Your task to perform on an android device: Open network settings Image 0: 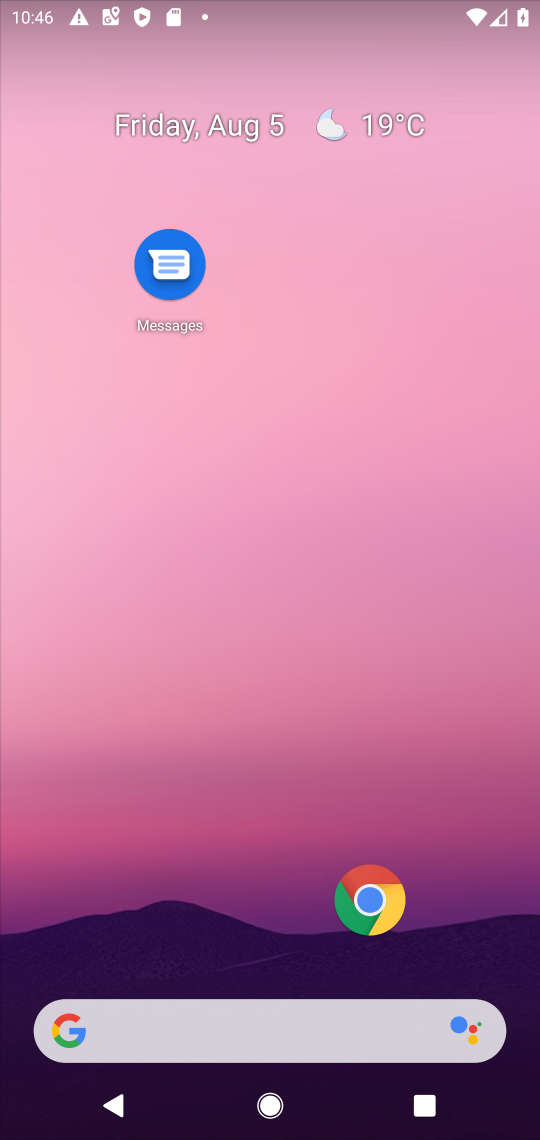
Step 0: press home button
Your task to perform on an android device: Open network settings Image 1: 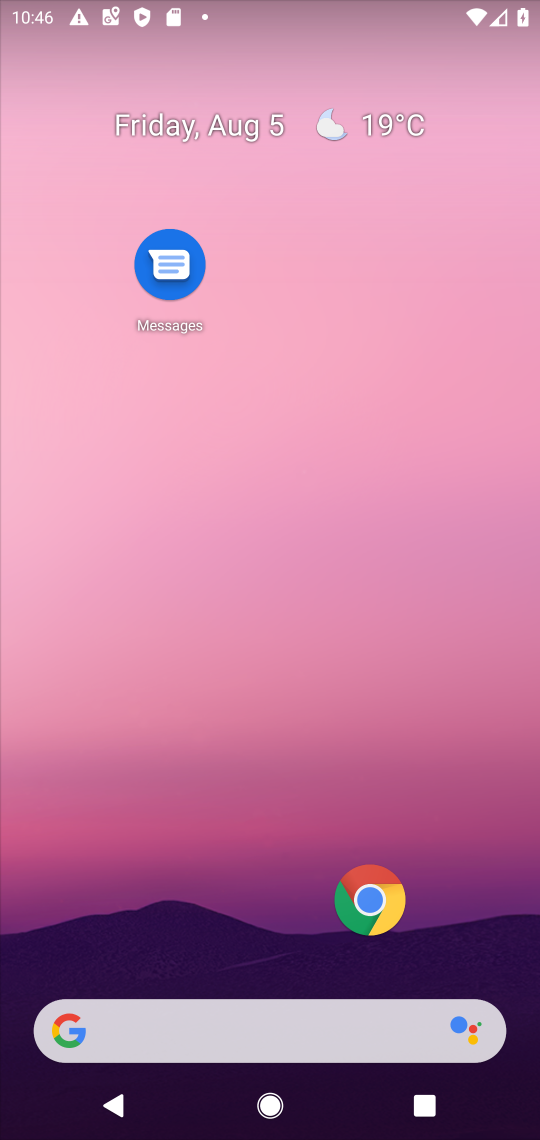
Step 1: drag from (250, 966) to (253, 508)
Your task to perform on an android device: Open network settings Image 2: 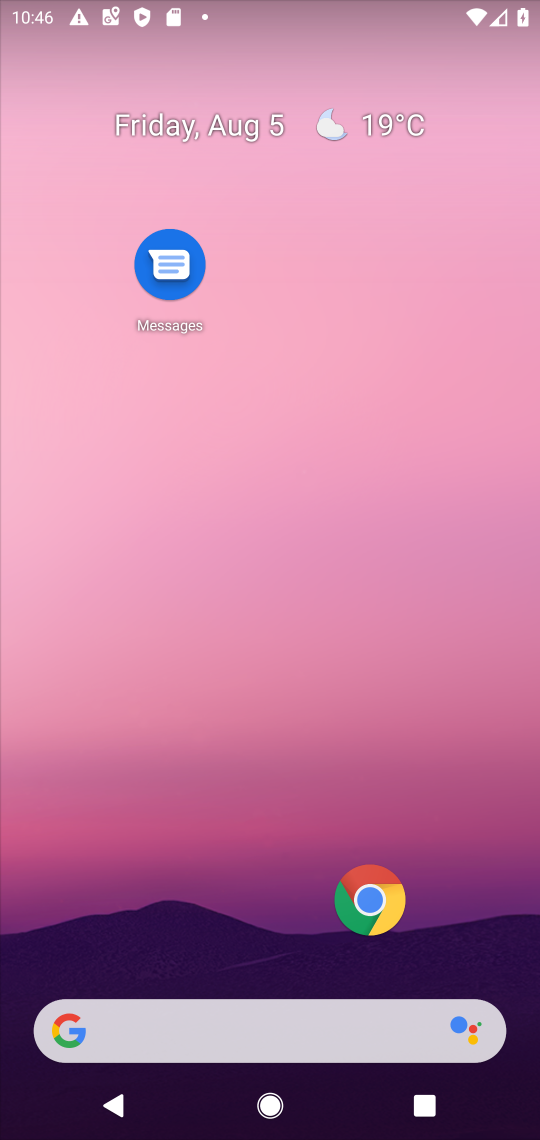
Step 2: drag from (258, 1000) to (212, 164)
Your task to perform on an android device: Open network settings Image 3: 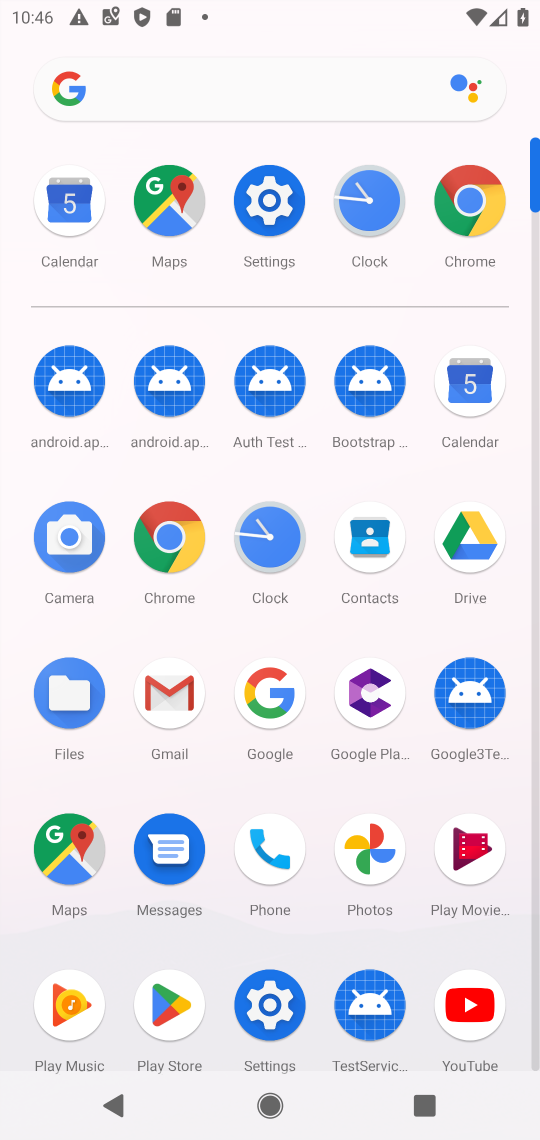
Step 3: click (269, 207)
Your task to perform on an android device: Open network settings Image 4: 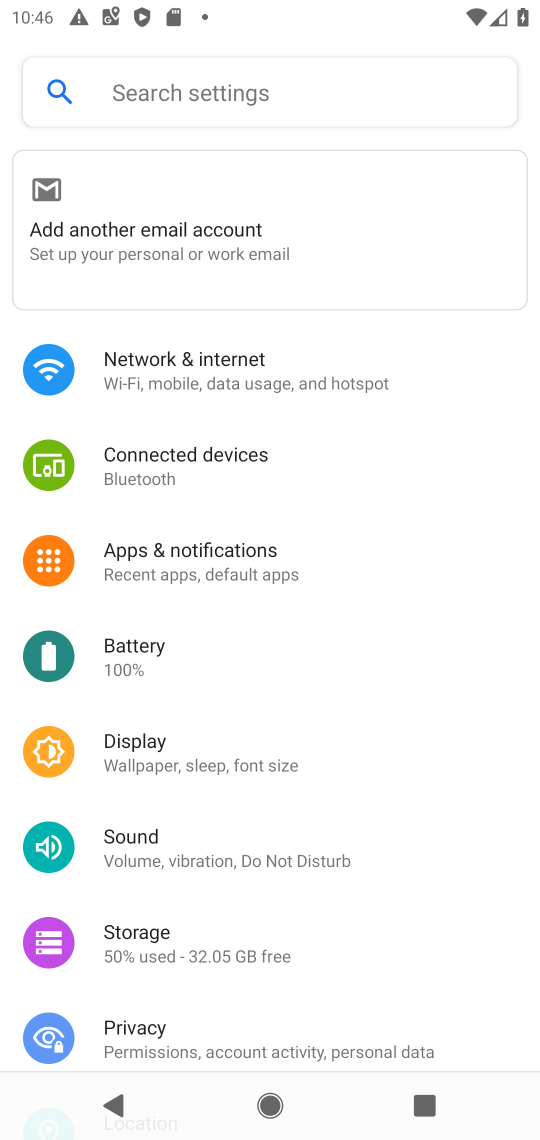
Step 4: click (98, 361)
Your task to perform on an android device: Open network settings Image 5: 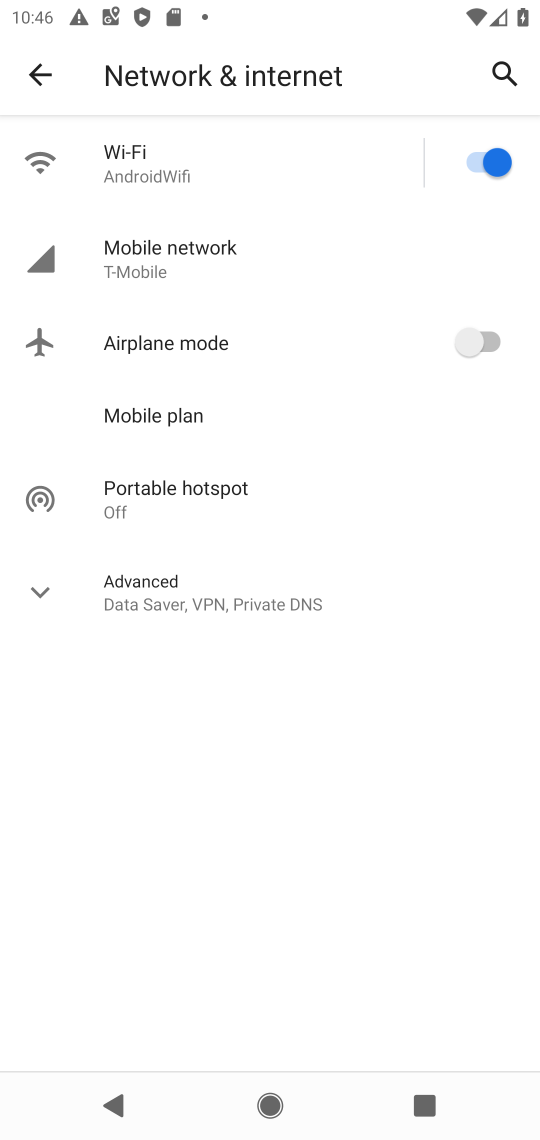
Step 5: task complete